Your task to perform on an android device: Open Google Maps and go to "Timeline" Image 0: 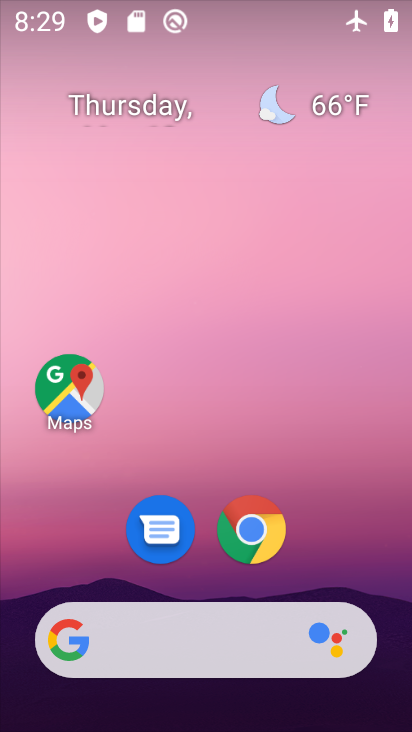
Step 0: click (65, 393)
Your task to perform on an android device: Open Google Maps and go to "Timeline" Image 1: 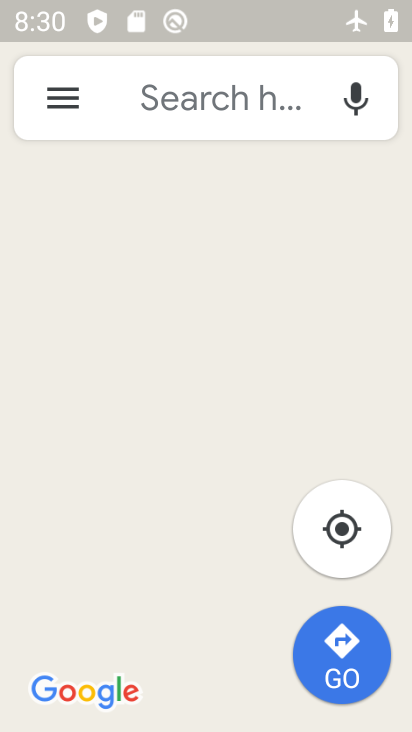
Step 1: click (60, 102)
Your task to perform on an android device: Open Google Maps and go to "Timeline" Image 2: 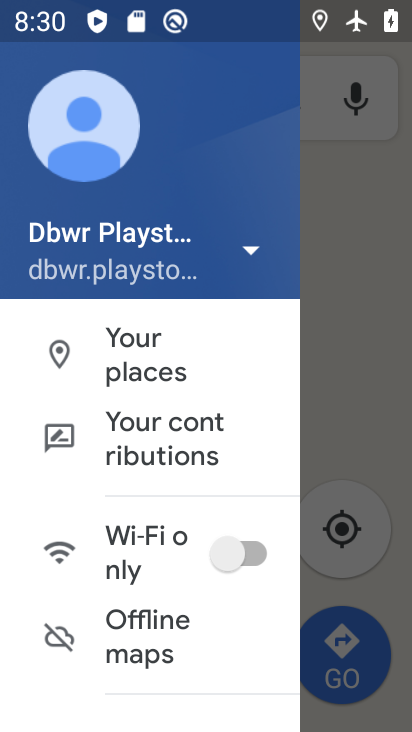
Step 2: drag from (89, 532) to (148, 412)
Your task to perform on an android device: Open Google Maps and go to "Timeline" Image 3: 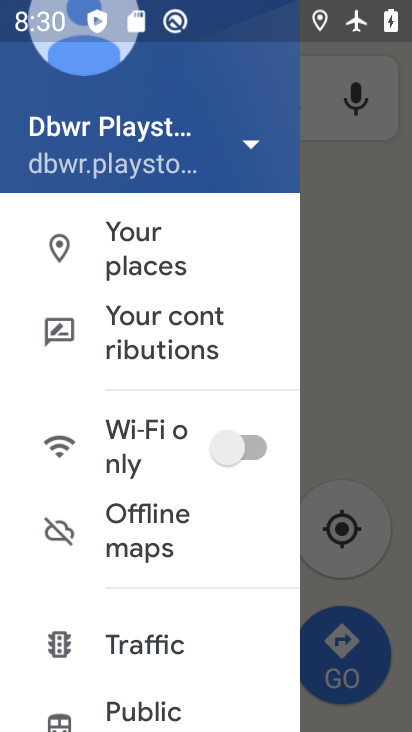
Step 3: drag from (137, 573) to (151, 510)
Your task to perform on an android device: Open Google Maps and go to "Timeline" Image 4: 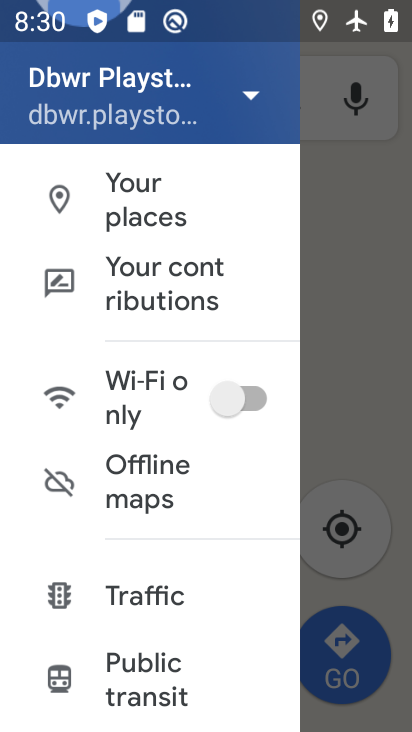
Step 4: drag from (135, 504) to (201, 314)
Your task to perform on an android device: Open Google Maps and go to "Timeline" Image 5: 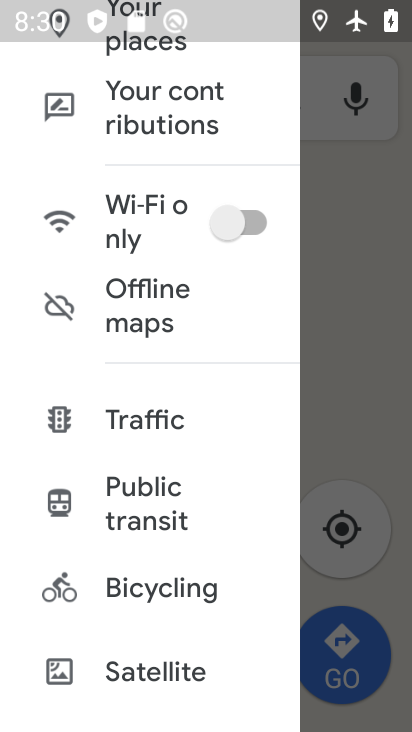
Step 5: drag from (172, 524) to (217, 286)
Your task to perform on an android device: Open Google Maps and go to "Timeline" Image 6: 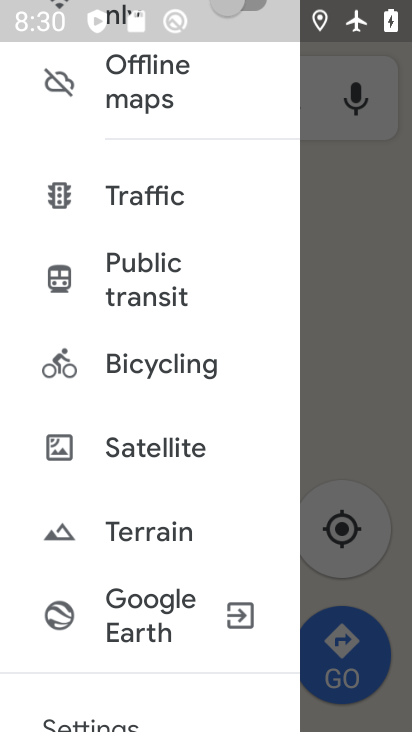
Step 6: click (392, 248)
Your task to perform on an android device: Open Google Maps and go to "Timeline" Image 7: 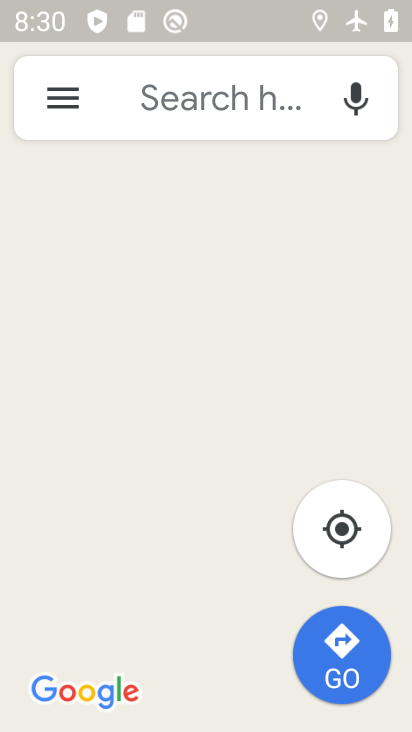
Step 7: task complete